Your task to perform on an android device: create a new album in the google photos Image 0: 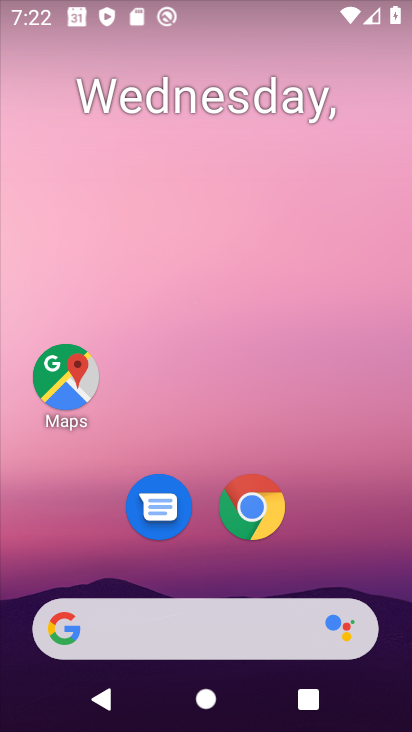
Step 0: drag from (225, 617) to (292, 147)
Your task to perform on an android device: create a new album in the google photos Image 1: 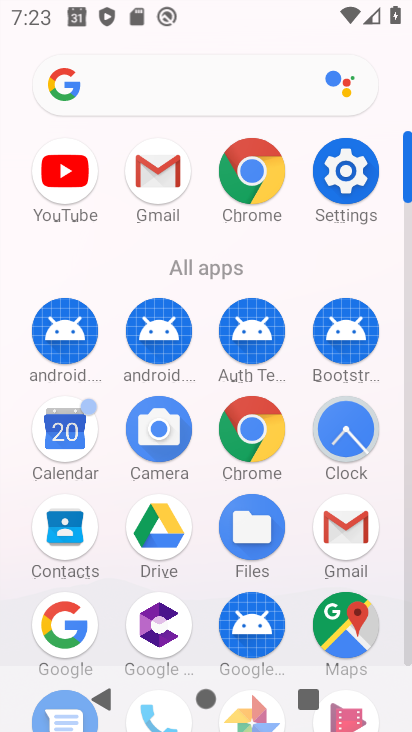
Step 1: drag from (213, 571) to (211, 449)
Your task to perform on an android device: create a new album in the google photos Image 2: 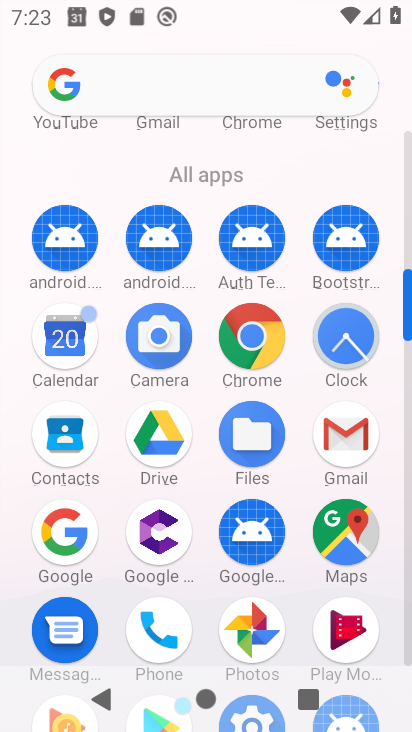
Step 2: click (263, 633)
Your task to perform on an android device: create a new album in the google photos Image 3: 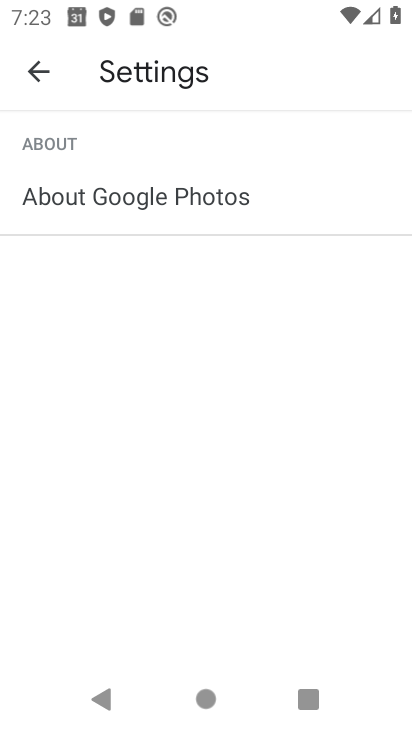
Step 3: click (29, 73)
Your task to perform on an android device: create a new album in the google photos Image 4: 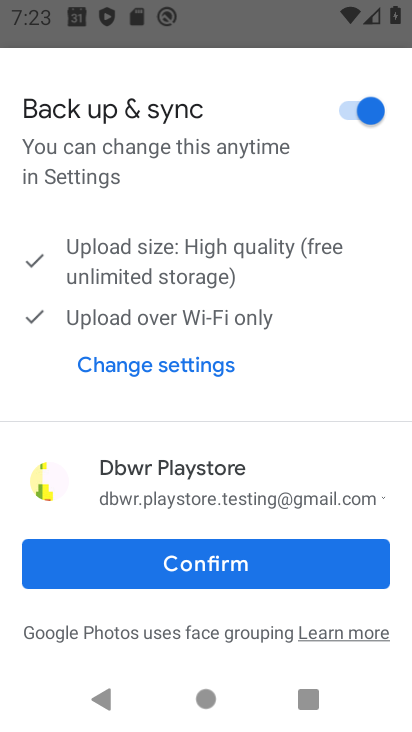
Step 4: click (180, 556)
Your task to perform on an android device: create a new album in the google photos Image 5: 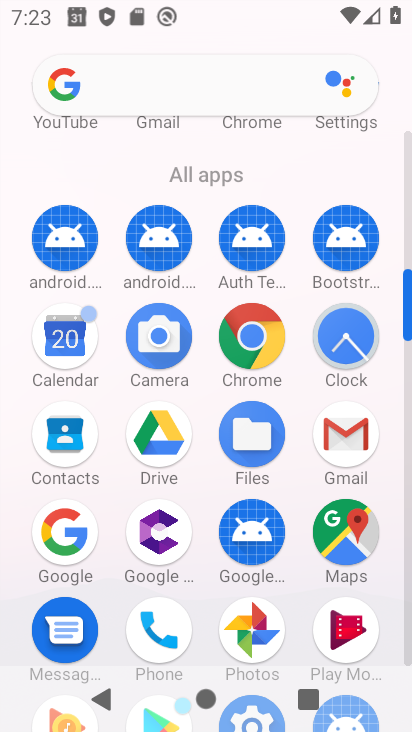
Step 5: click (235, 617)
Your task to perform on an android device: create a new album in the google photos Image 6: 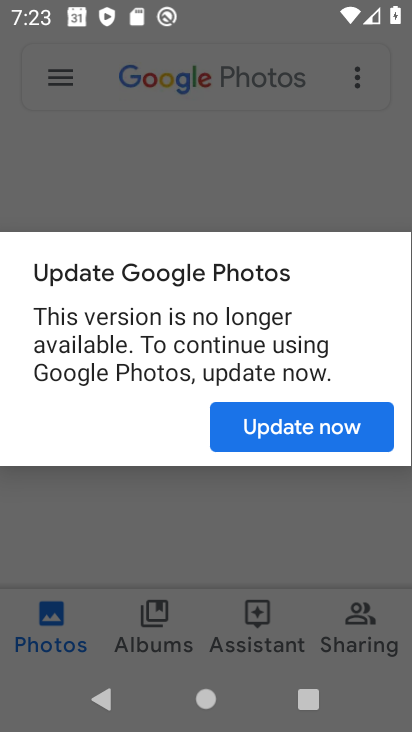
Step 6: click (296, 423)
Your task to perform on an android device: create a new album in the google photos Image 7: 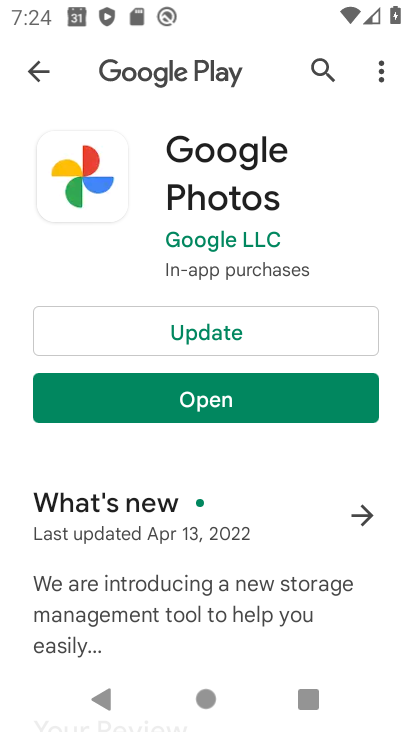
Step 7: click (196, 381)
Your task to perform on an android device: create a new album in the google photos Image 8: 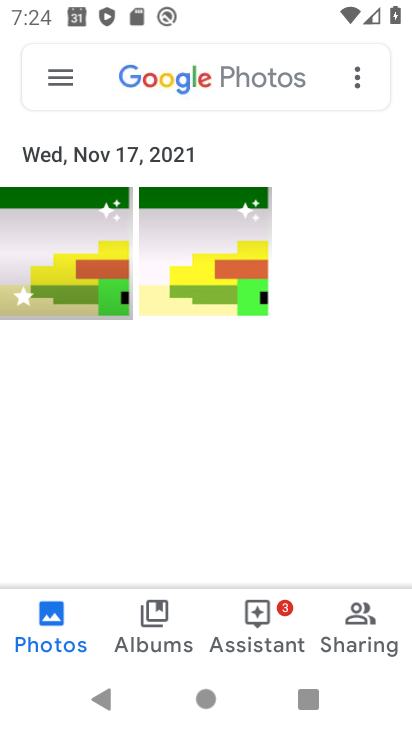
Step 8: click (206, 267)
Your task to perform on an android device: create a new album in the google photos Image 9: 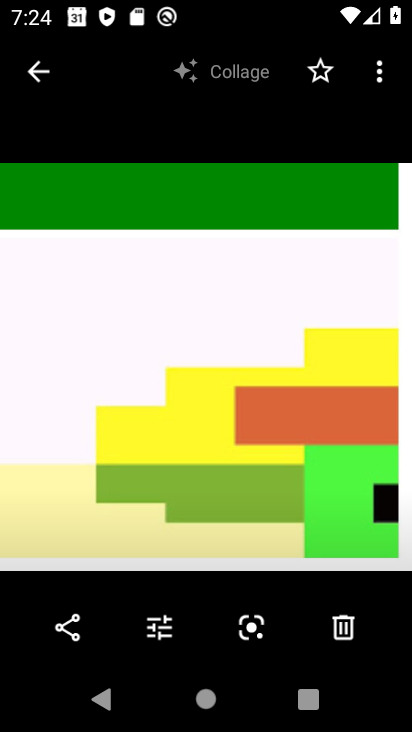
Step 9: click (381, 82)
Your task to perform on an android device: create a new album in the google photos Image 10: 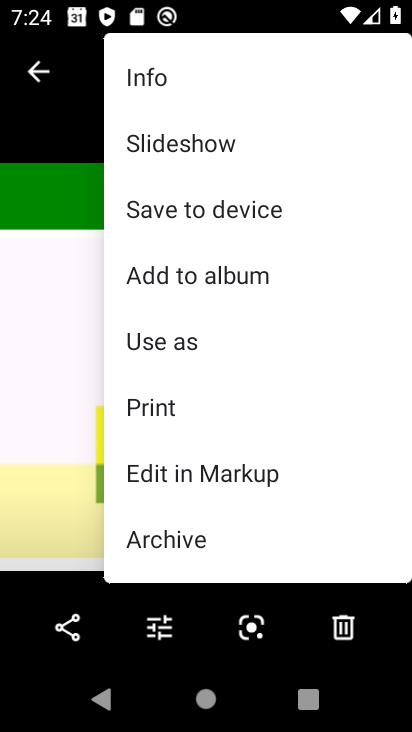
Step 10: click (180, 281)
Your task to perform on an android device: create a new album in the google photos Image 11: 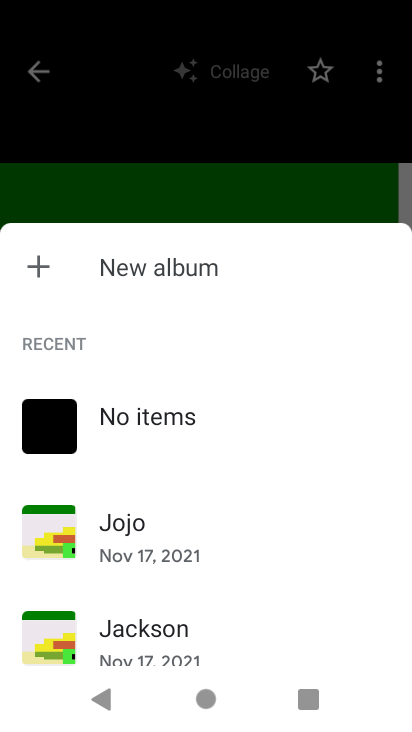
Step 11: click (137, 259)
Your task to perform on an android device: create a new album in the google photos Image 12: 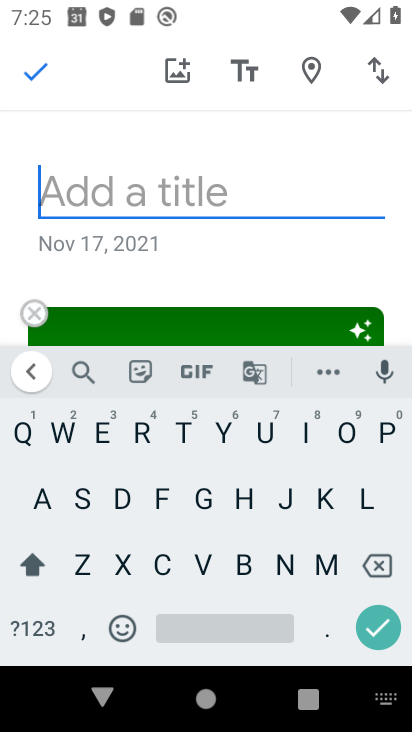
Step 12: click (328, 564)
Your task to perform on an android device: create a new album in the google photos Image 13: 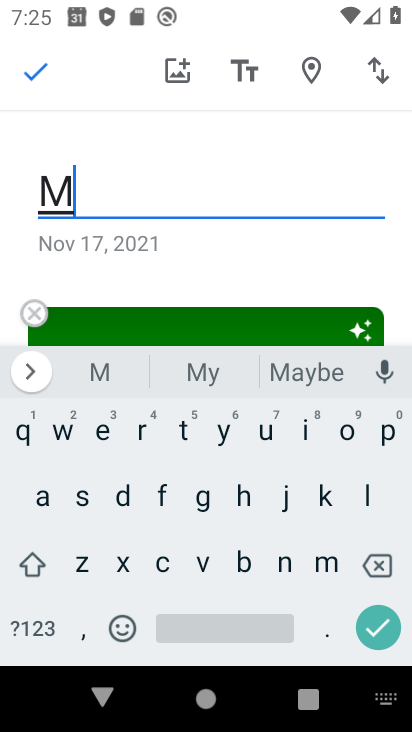
Step 13: click (219, 435)
Your task to perform on an android device: create a new album in the google photos Image 14: 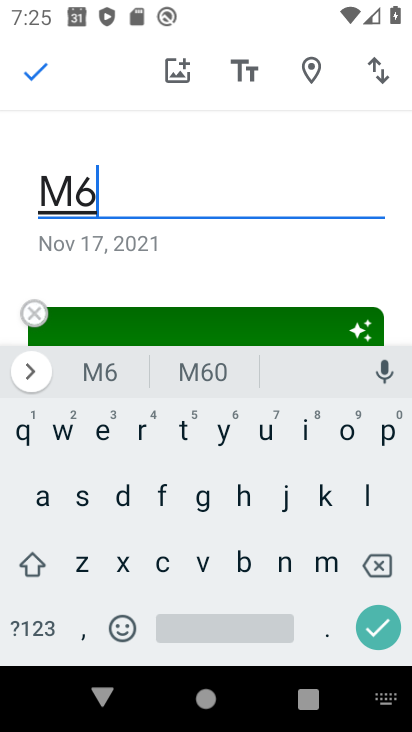
Step 14: click (373, 556)
Your task to perform on an android device: create a new album in the google photos Image 15: 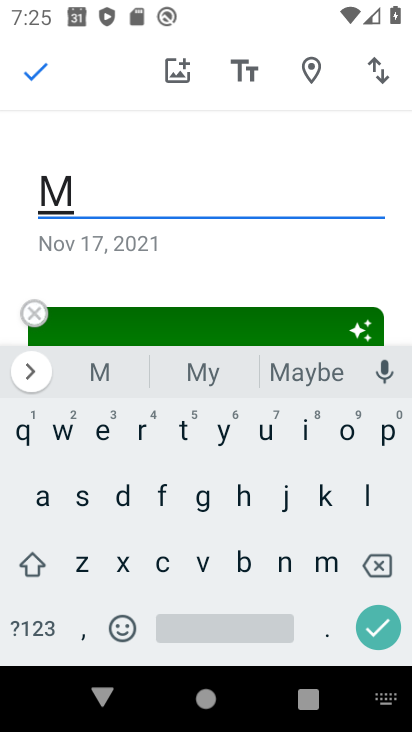
Step 15: click (222, 430)
Your task to perform on an android device: create a new album in the google photos Image 16: 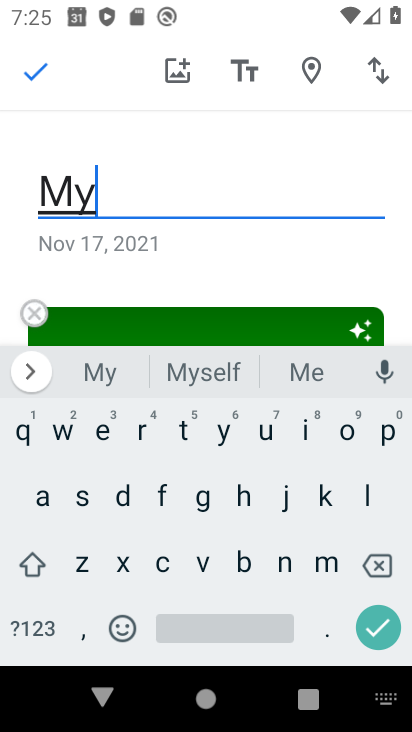
Step 16: click (221, 617)
Your task to perform on an android device: create a new album in the google photos Image 17: 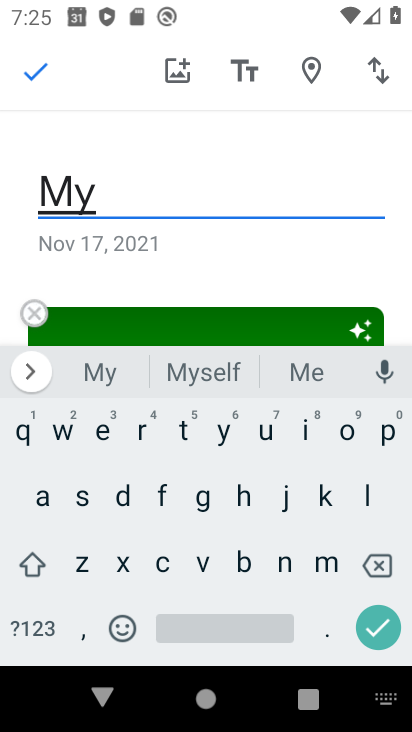
Step 17: click (221, 617)
Your task to perform on an android device: create a new album in the google photos Image 18: 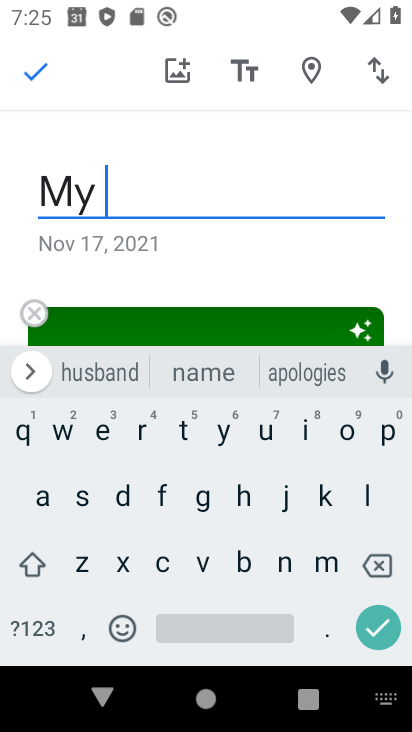
Step 18: click (379, 443)
Your task to perform on an android device: create a new album in the google photos Image 19: 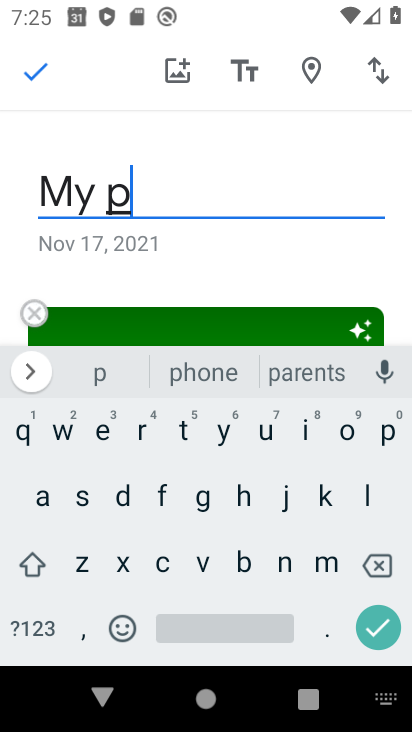
Step 19: click (300, 430)
Your task to perform on an android device: create a new album in the google photos Image 20: 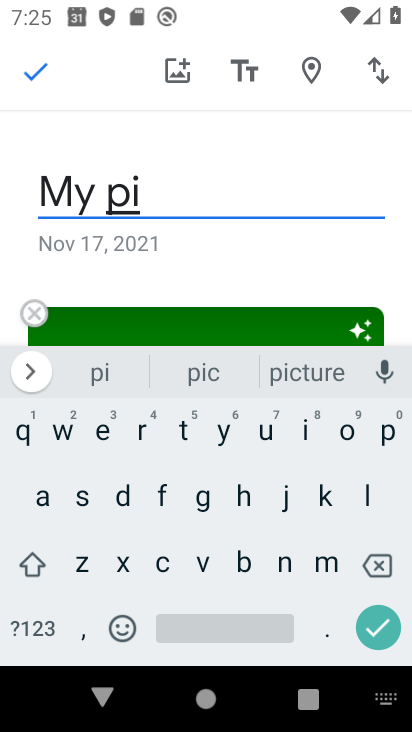
Step 20: click (163, 555)
Your task to perform on an android device: create a new album in the google photos Image 21: 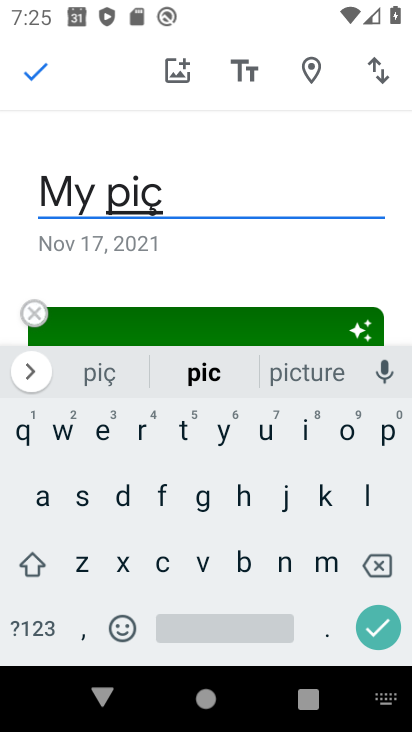
Step 21: click (26, 87)
Your task to perform on an android device: create a new album in the google photos Image 22: 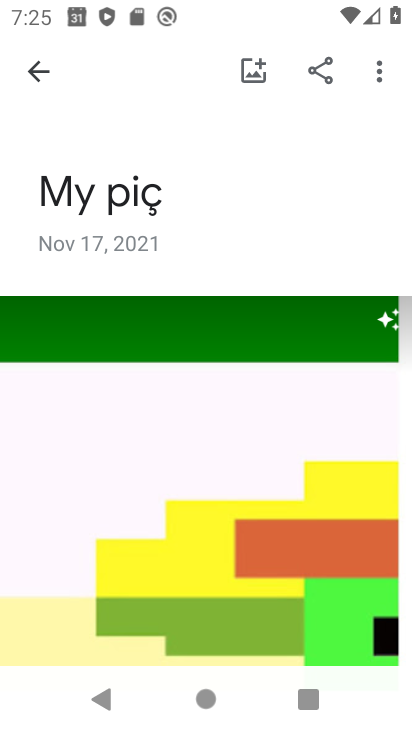
Step 22: task complete